Your task to perform on an android device: Open Yahoo.com Image 0: 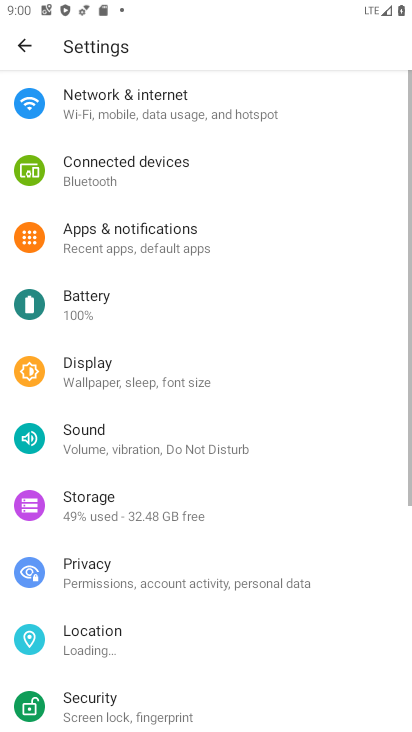
Step 0: press home button
Your task to perform on an android device: Open Yahoo.com Image 1: 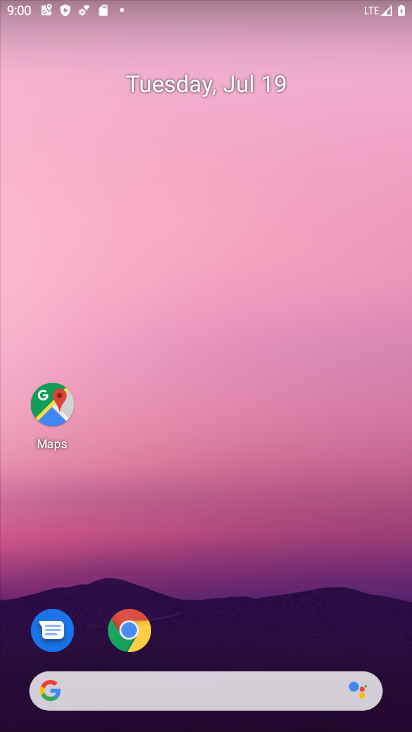
Step 1: drag from (214, 639) to (205, 32)
Your task to perform on an android device: Open Yahoo.com Image 2: 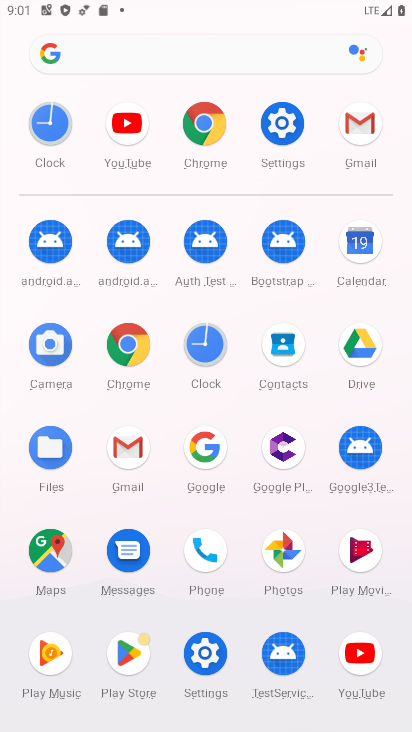
Step 2: click (205, 121)
Your task to perform on an android device: Open Yahoo.com Image 3: 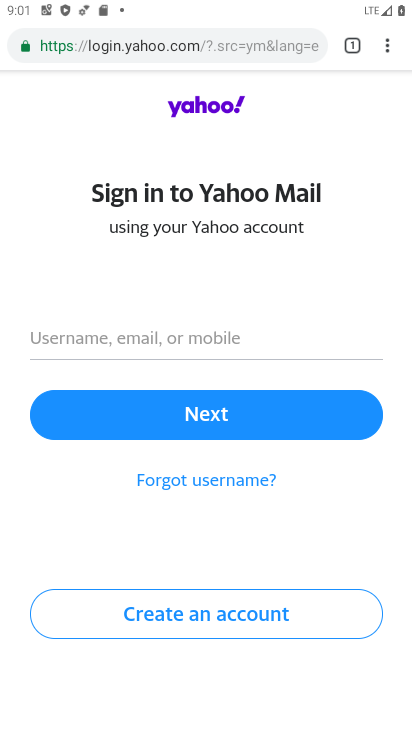
Step 3: task complete